Your task to perform on an android device: change the clock style Image 0: 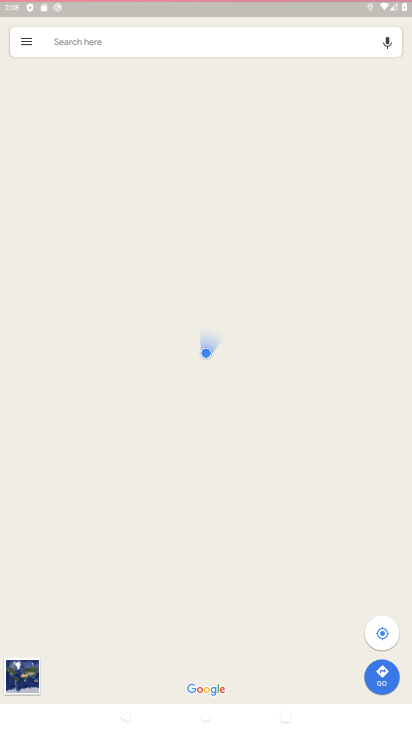
Step 0: press home button
Your task to perform on an android device: change the clock style Image 1: 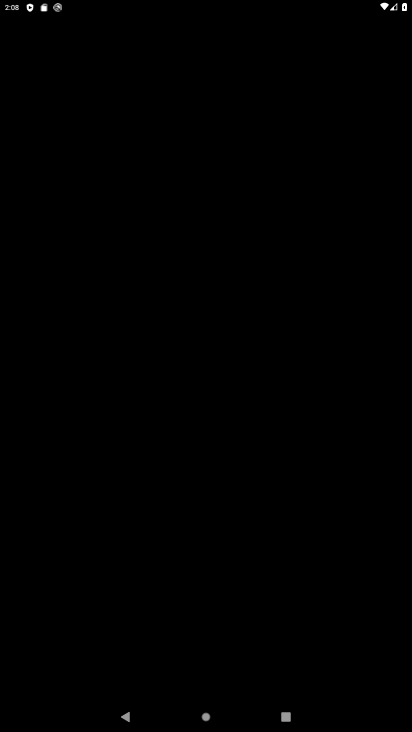
Step 1: press home button
Your task to perform on an android device: change the clock style Image 2: 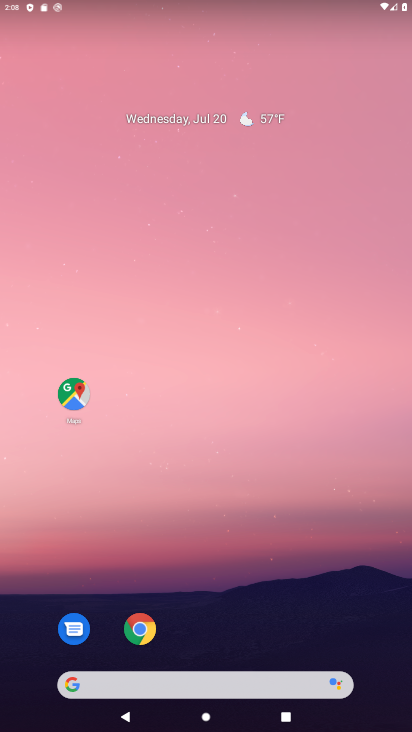
Step 2: drag from (208, 613) to (205, 196)
Your task to perform on an android device: change the clock style Image 3: 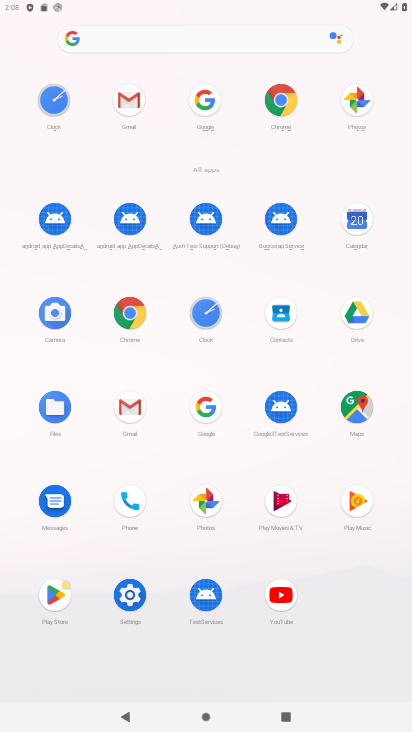
Step 3: click (59, 594)
Your task to perform on an android device: change the clock style Image 4: 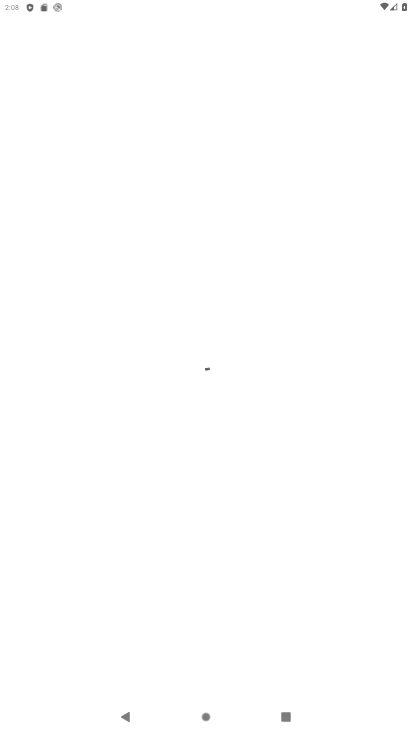
Step 4: press home button
Your task to perform on an android device: change the clock style Image 5: 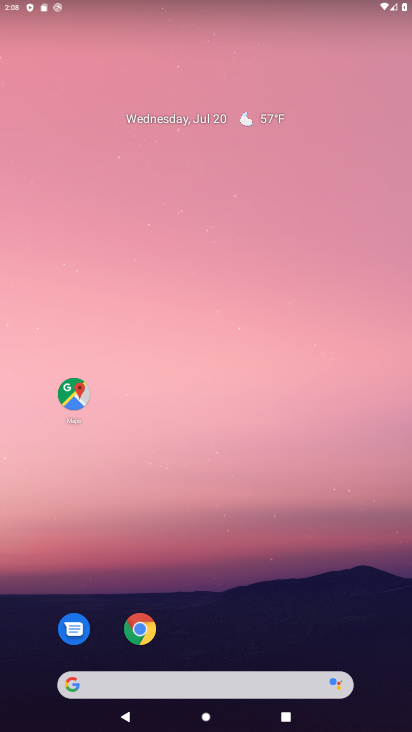
Step 5: drag from (215, 583) to (223, 136)
Your task to perform on an android device: change the clock style Image 6: 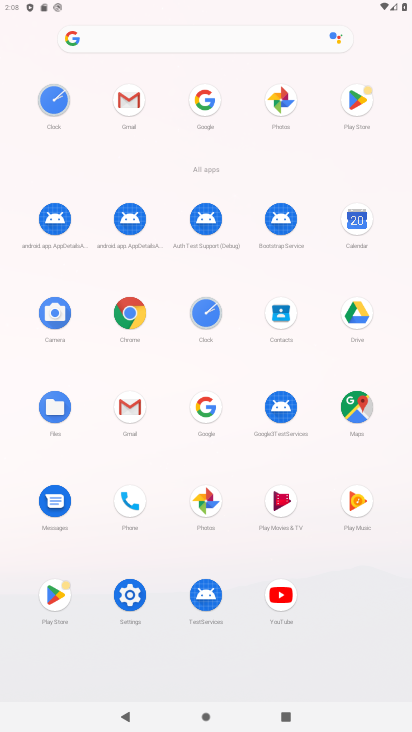
Step 6: click (55, 104)
Your task to perform on an android device: change the clock style Image 7: 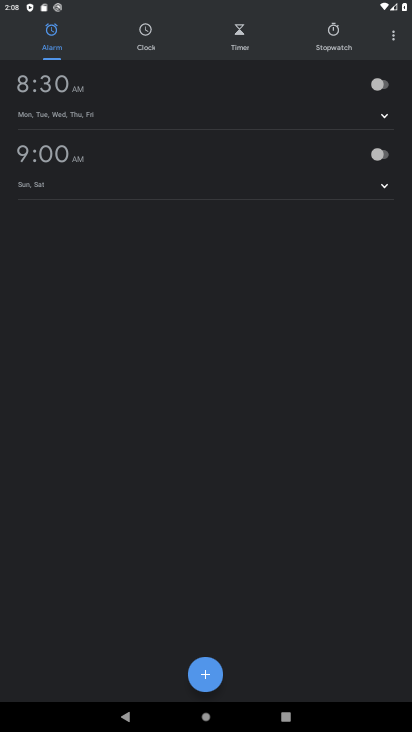
Step 7: click (396, 33)
Your task to perform on an android device: change the clock style Image 8: 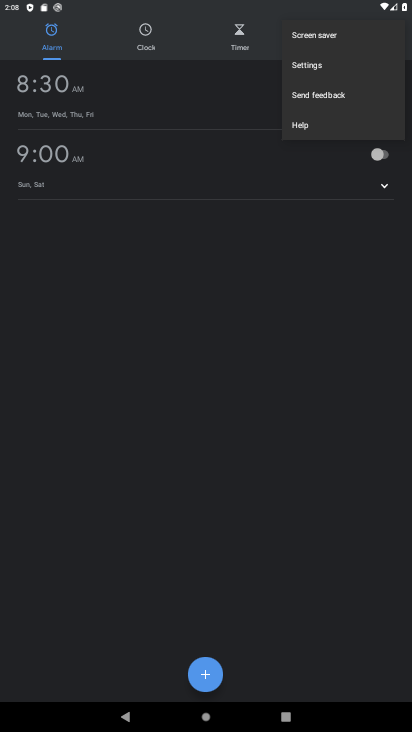
Step 8: click (337, 62)
Your task to perform on an android device: change the clock style Image 9: 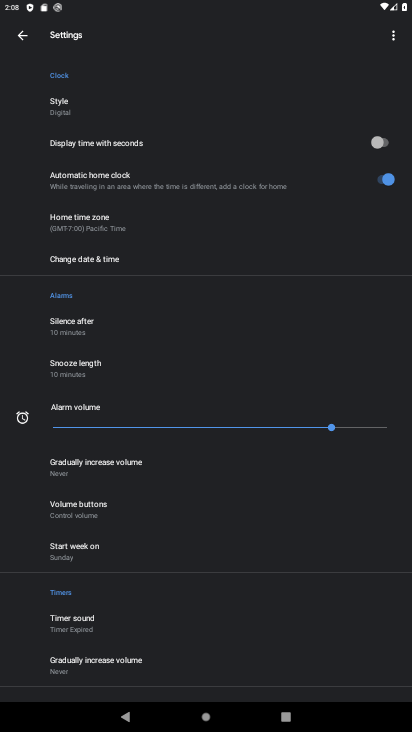
Step 9: click (97, 101)
Your task to perform on an android device: change the clock style Image 10: 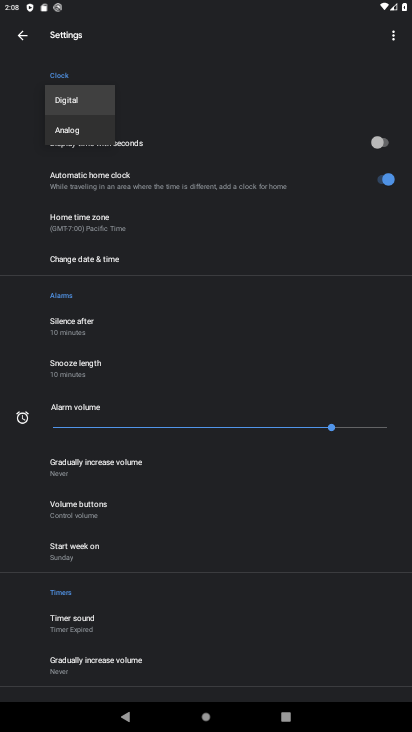
Step 10: click (75, 127)
Your task to perform on an android device: change the clock style Image 11: 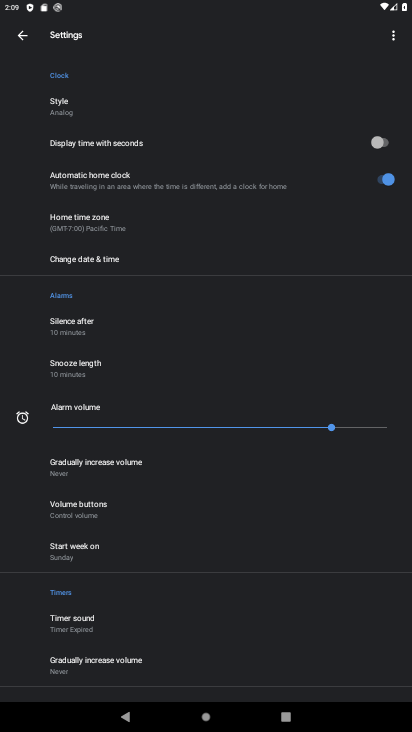
Step 11: task complete